Your task to perform on an android device: Open Yahoo.com Image 0: 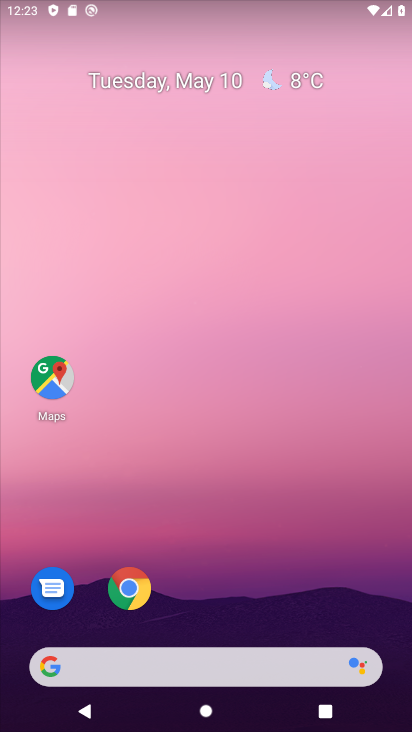
Step 0: drag from (209, 634) to (135, 35)
Your task to perform on an android device: Open Yahoo.com Image 1: 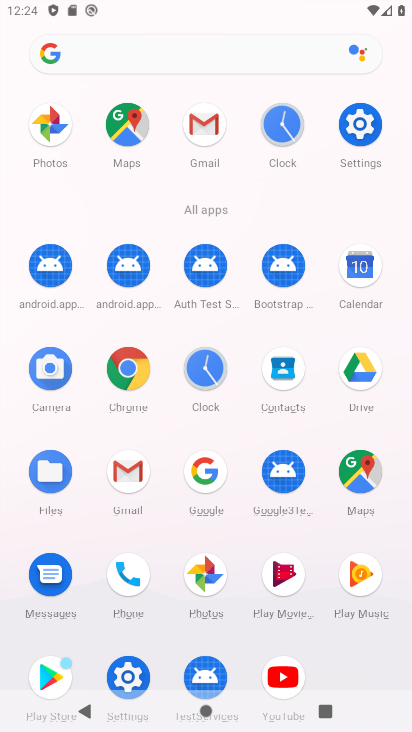
Step 1: click (125, 373)
Your task to perform on an android device: Open Yahoo.com Image 2: 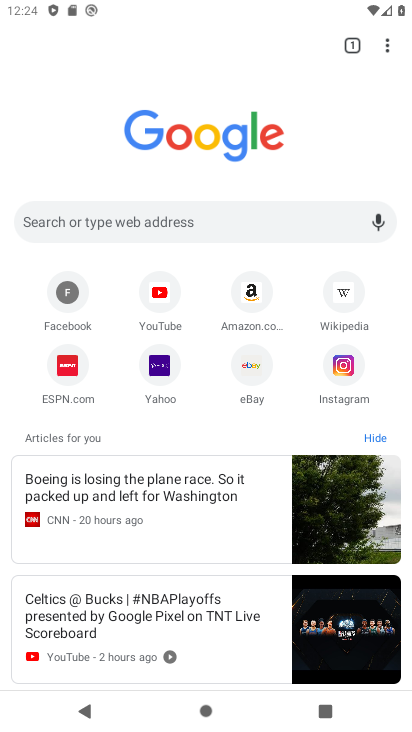
Step 2: click (152, 379)
Your task to perform on an android device: Open Yahoo.com Image 3: 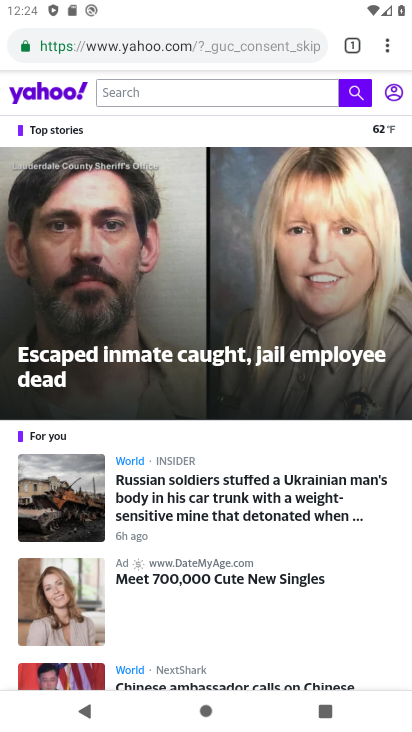
Step 3: task complete